Your task to perform on an android device: Check the weather Image 0: 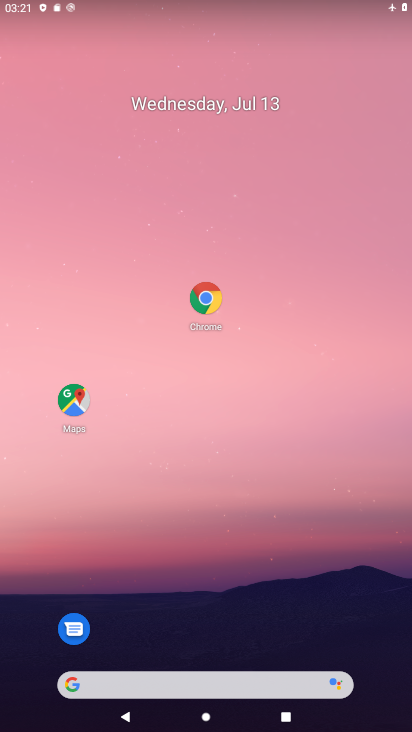
Step 0: click (196, 283)
Your task to perform on an android device: Check the weather Image 1: 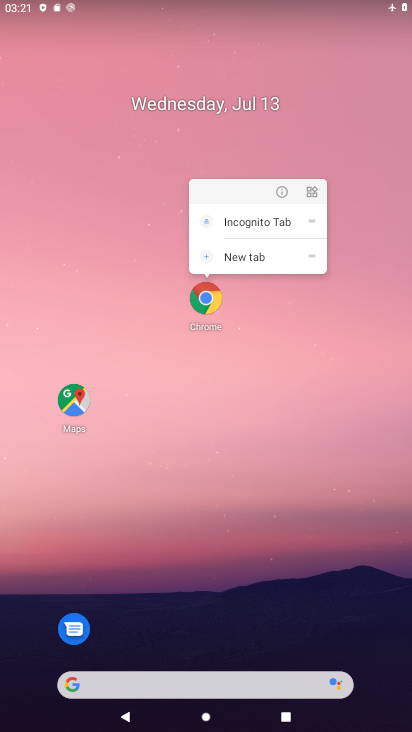
Step 1: click (196, 288)
Your task to perform on an android device: Check the weather Image 2: 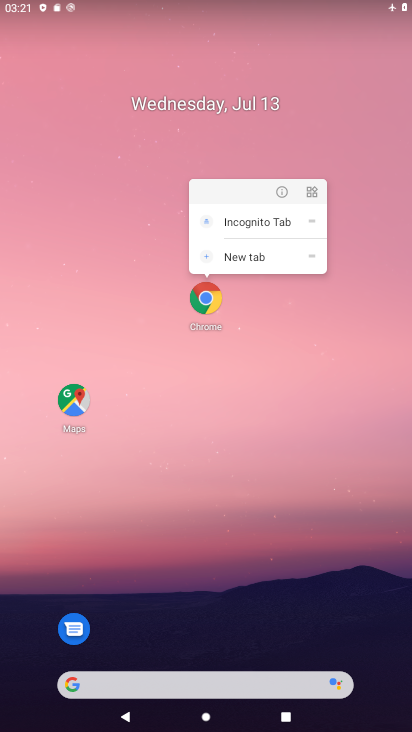
Step 2: click (201, 306)
Your task to perform on an android device: Check the weather Image 3: 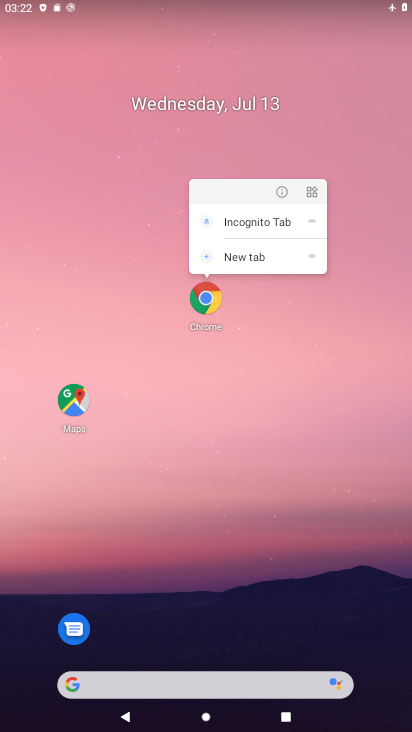
Step 3: click (211, 289)
Your task to perform on an android device: Check the weather Image 4: 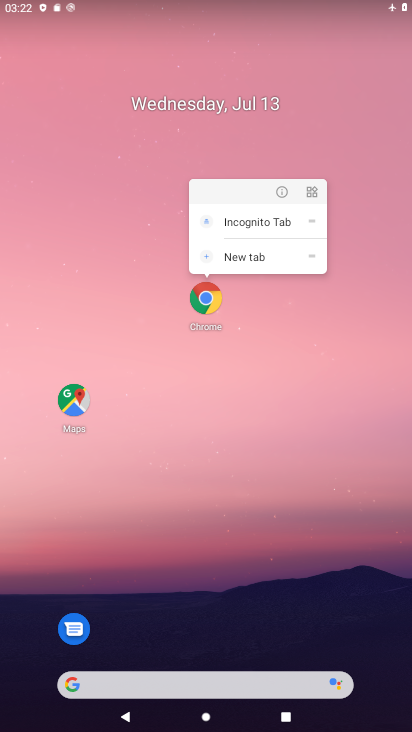
Step 4: click (211, 289)
Your task to perform on an android device: Check the weather Image 5: 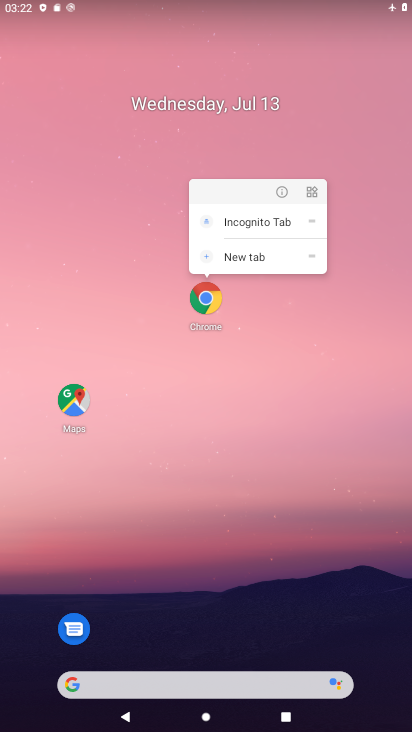
Step 5: click (204, 294)
Your task to perform on an android device: Check the weather Image 6: 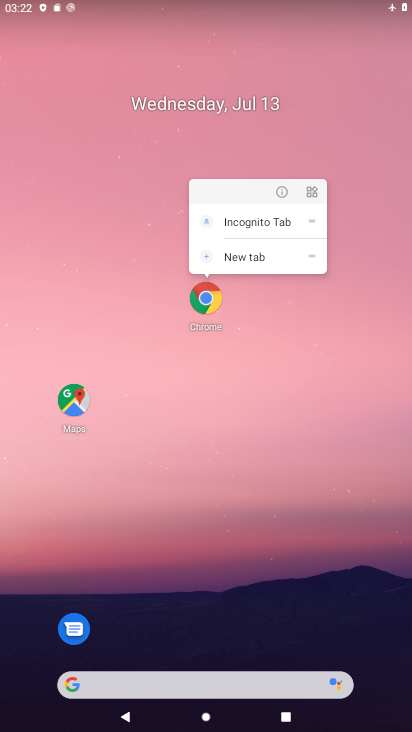
Step 6: drag from (196, 653) to (245, 167)
Your task to perform on an android device: Check the weather Image 7: 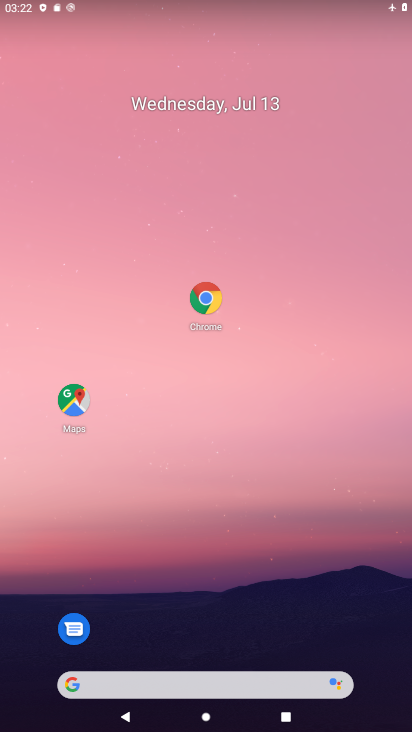
Step 7: click (202, 286)
Your task to perform on an android device: Check the weather Image 8: 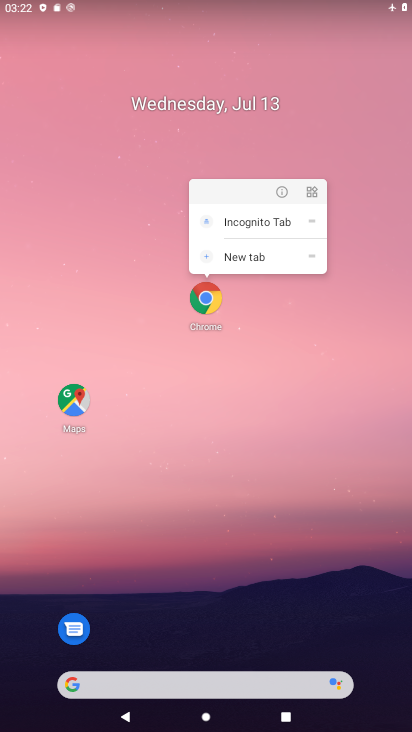
Step 8: click (194, 299)
Your task to perform on an android device: Check the weather Image 9: 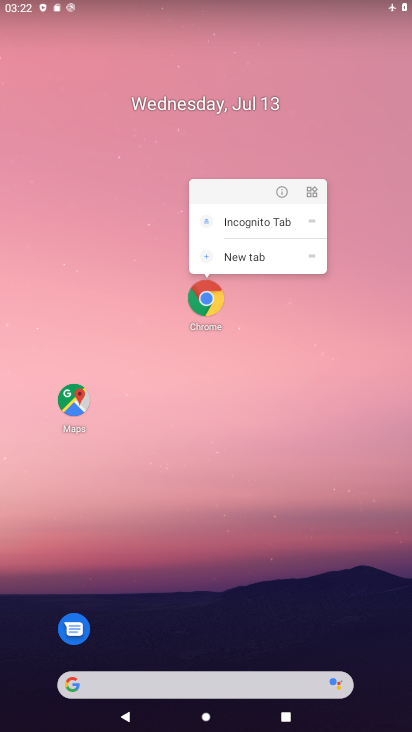
Step 9: click (194, 299)
Your task to perform on an android device: Check the weather Image 10: 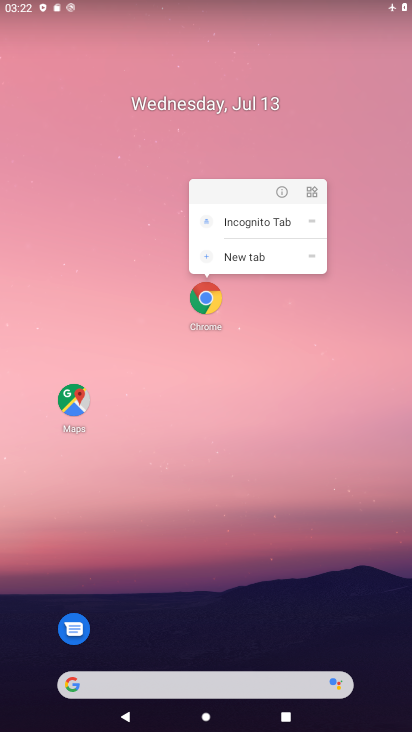
Step 10: drag from (239, 653) to (231, 142)
Your task to perform on an android device: Check the weather Image 11: 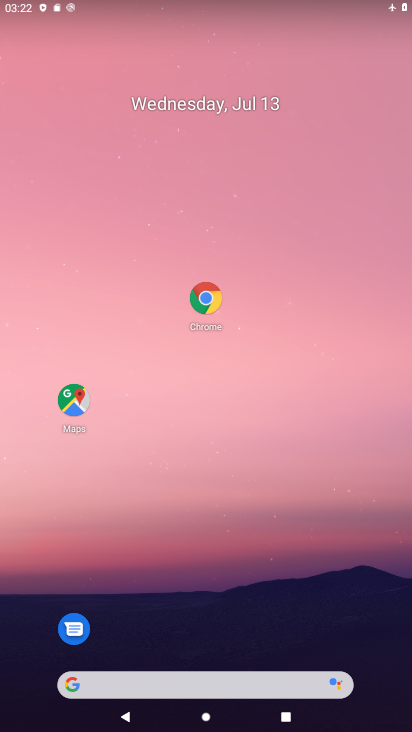
Step 11: drag from (148, 702) to (184, 328)
Your task to perform on an android device: Check the weather Image 12: 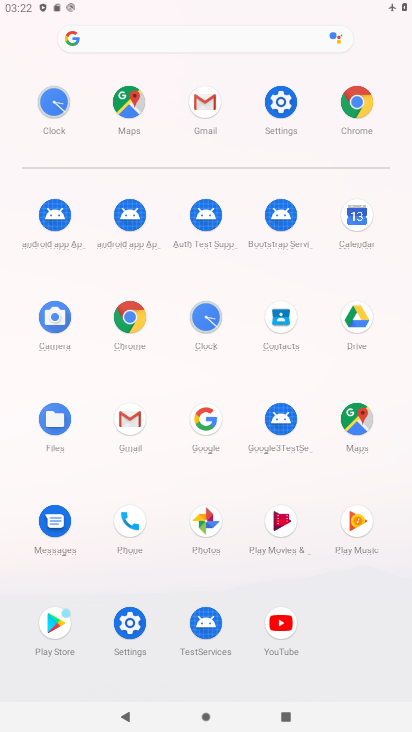
Step 12: click (127, 322)
Your task to perform on an android device: Check the weather Image 13: 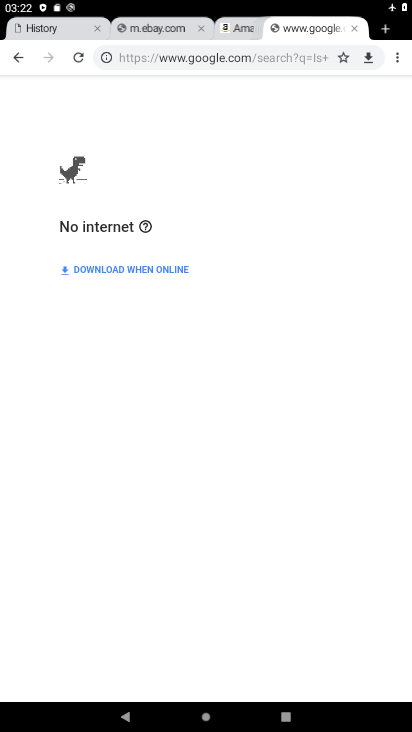
Step 13: click (355, 26)
Your task to perform on an android device: Check the weather Image 14: 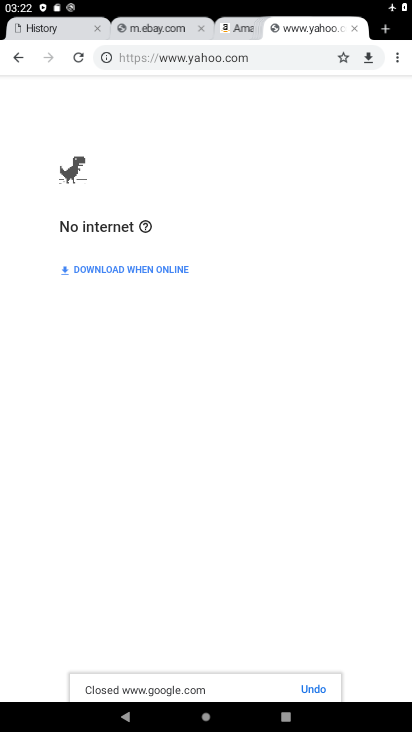
Step 14: click (355, 26)
Your task to perform on an android device: Check the weather Image 15: 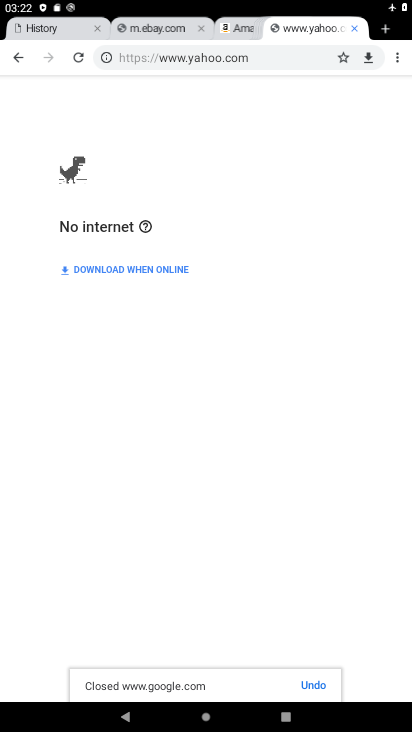
Step 15: click (355, 26)
Your task to perform on an android device: Check the weather Image 16: 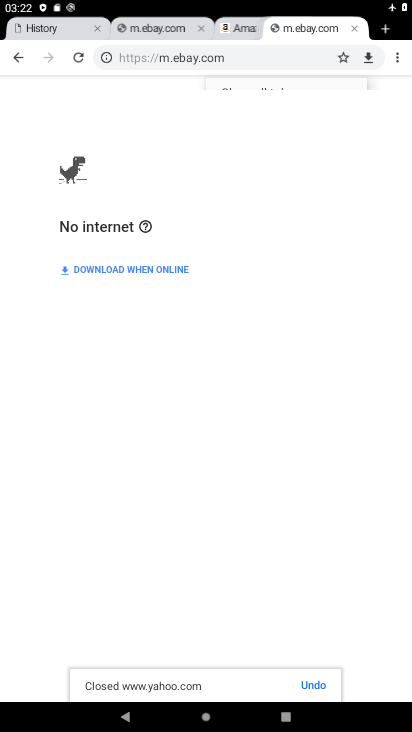
Step 16: click (355, 26)
Your task to perform on an android device: Check the weather Image 17: 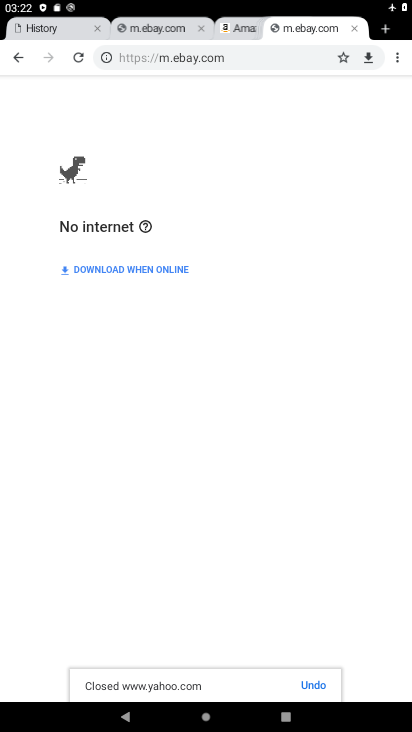
Step 17: click (349, 26)
Your task to perform on an android device: Check the weather Image 18: 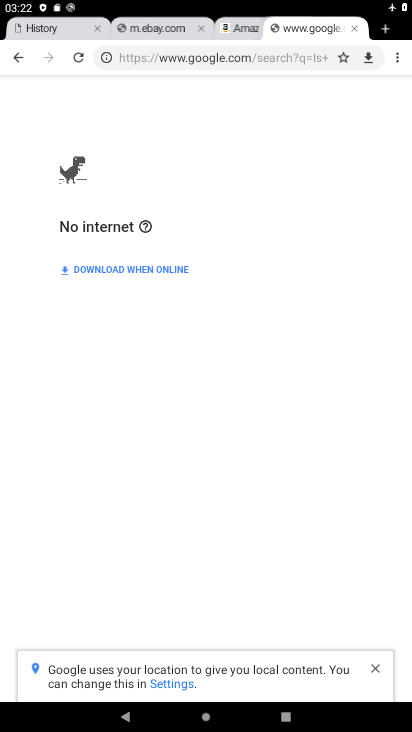
Step 18: click (386, 35)
Your task to perform on an android device: Check the weather Image 19: 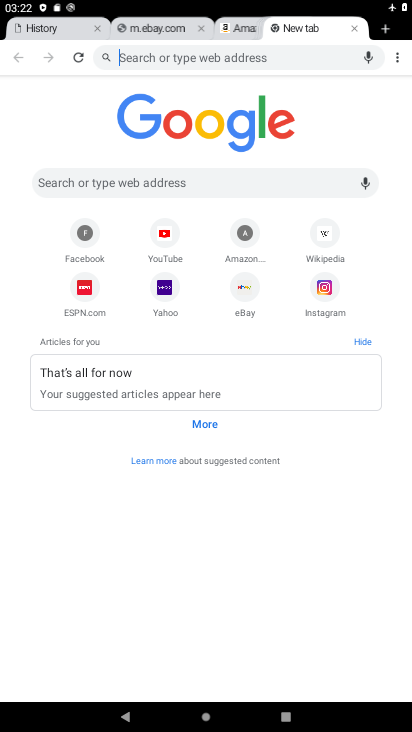
Step 19: click (143, 726)
Your task to perform on an android device: Check the weather Image 20: 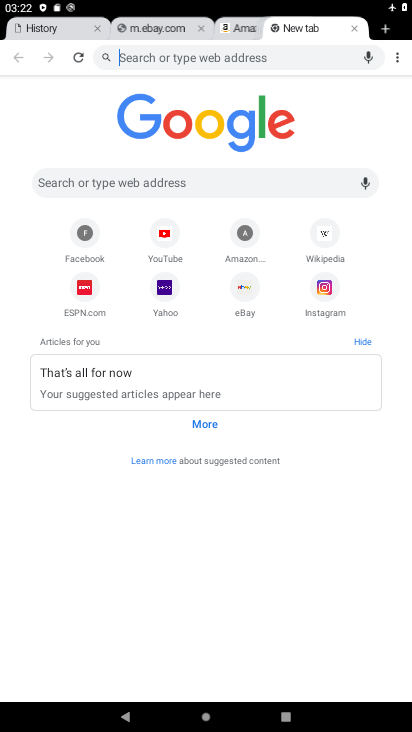
Step 20: click (230, 170)
Your task to perform on an android device: Check the weather Image 21: 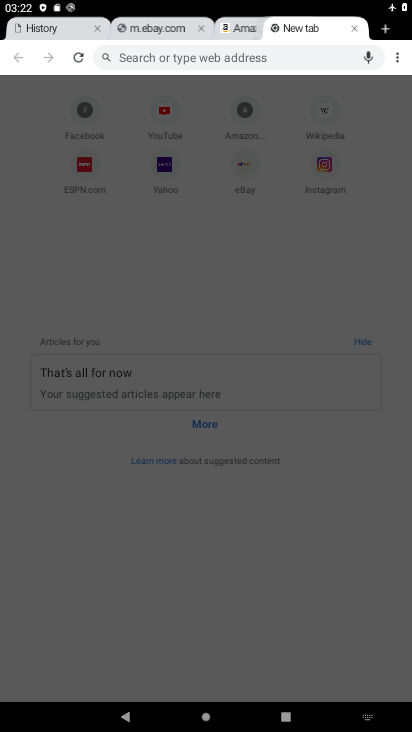
Step 21: type "Check the weather "
Your task to perform on an android device: Check the weather Image 22: 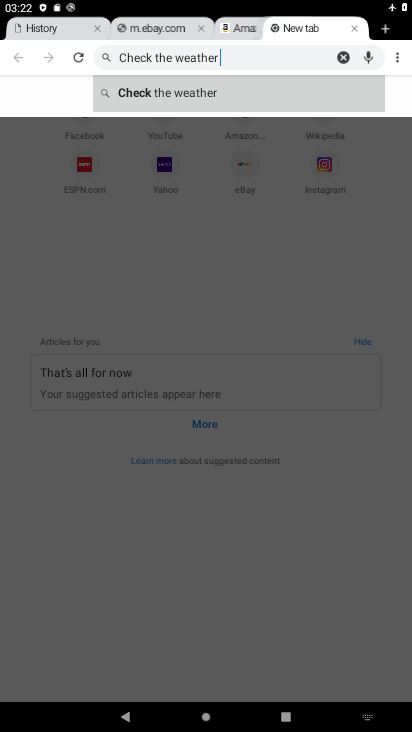
Step 22: click (153, 100)
Your task to perform on an android device: Check the weather Image 23: 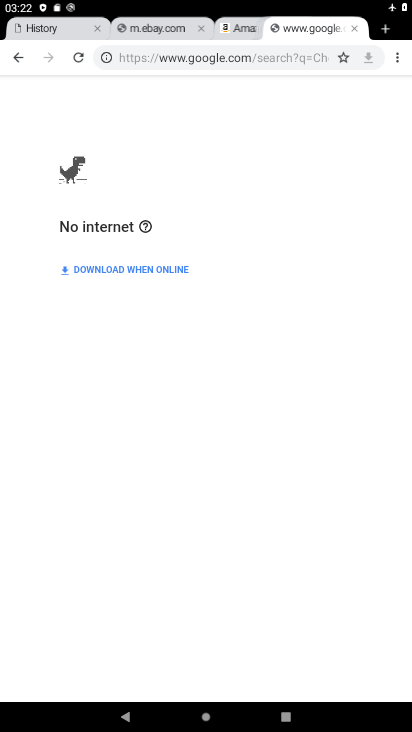
Step 23: task complete